Your task to perform on an android device: open app "Firefox Browser" (install if not already installed) Image 0: 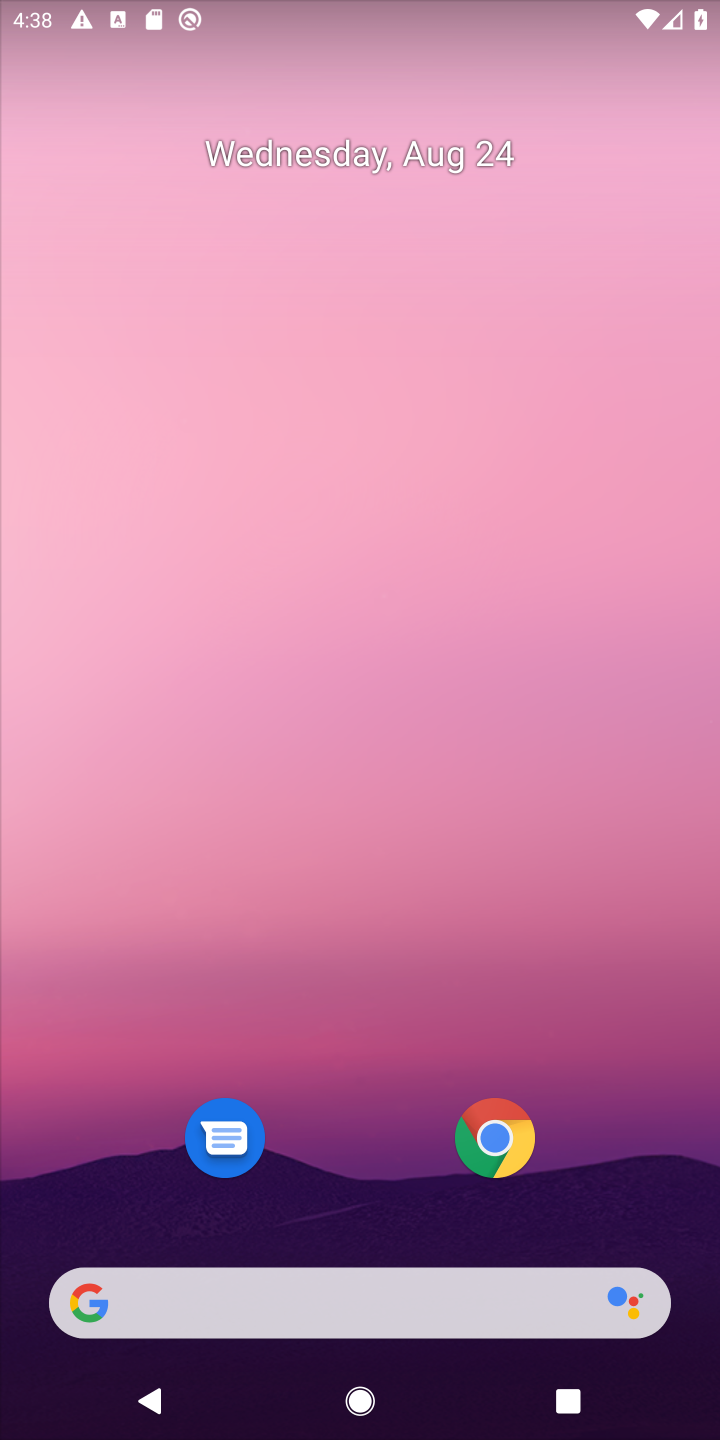
Step 0: drag from (412, 1248) to (380, 256)
Your task to perform on an android device: open app "Firefox Browser" (install if not already installed) Image 1: 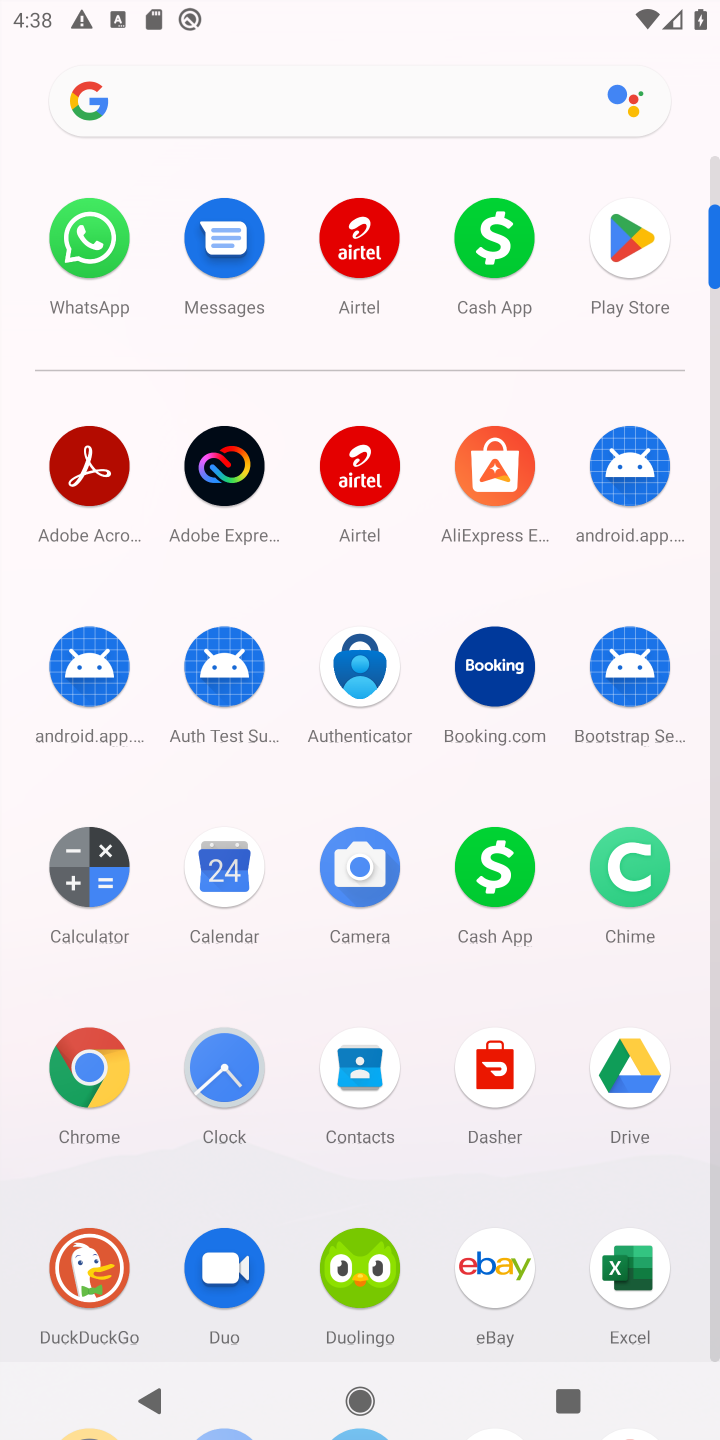
Step 1: drag from (424, 954) to (424, 478)
Your task to perform on an android device: open app "Firefox Browser" (install if not already installed) Image 2: 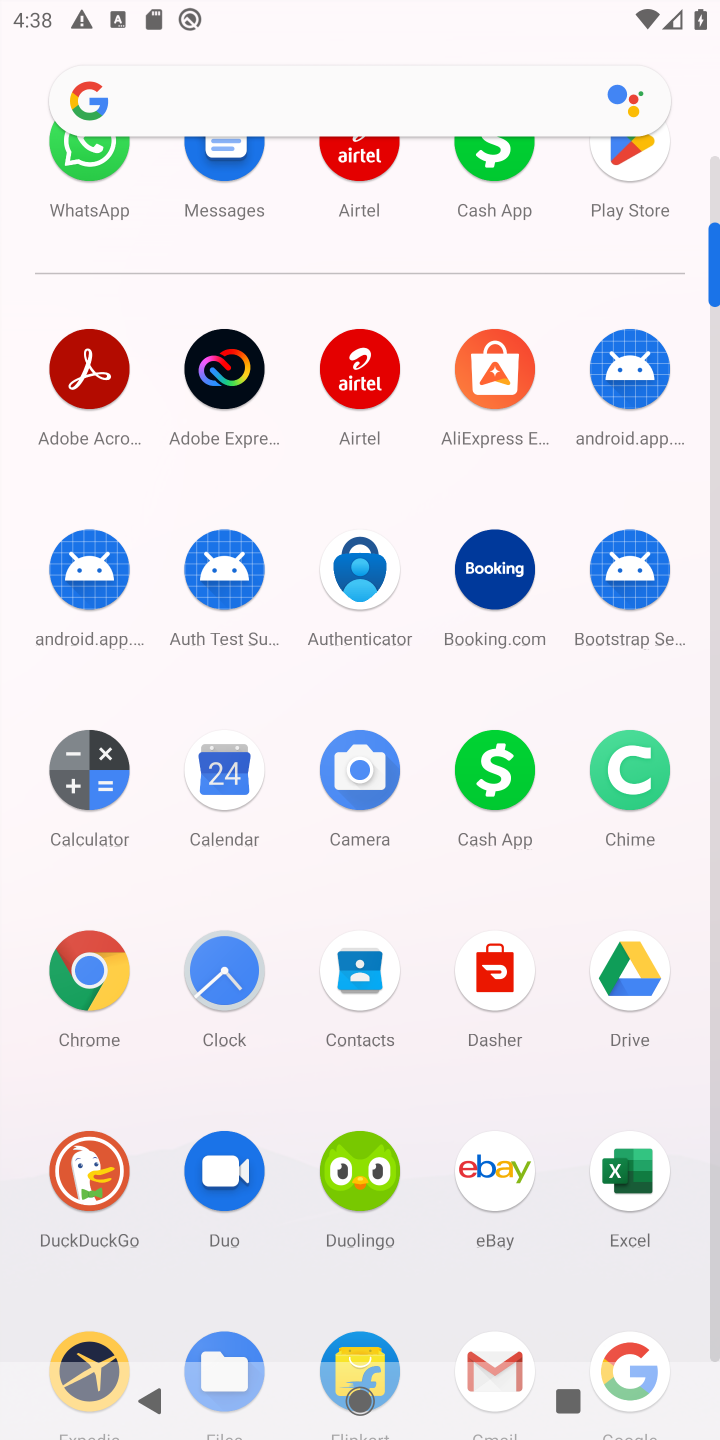
Step 2: drag from (420, 1265) to (420, 470)
Your task to perform on an android device: open app "Firefox Browser" (install if not already installed) Image 3: 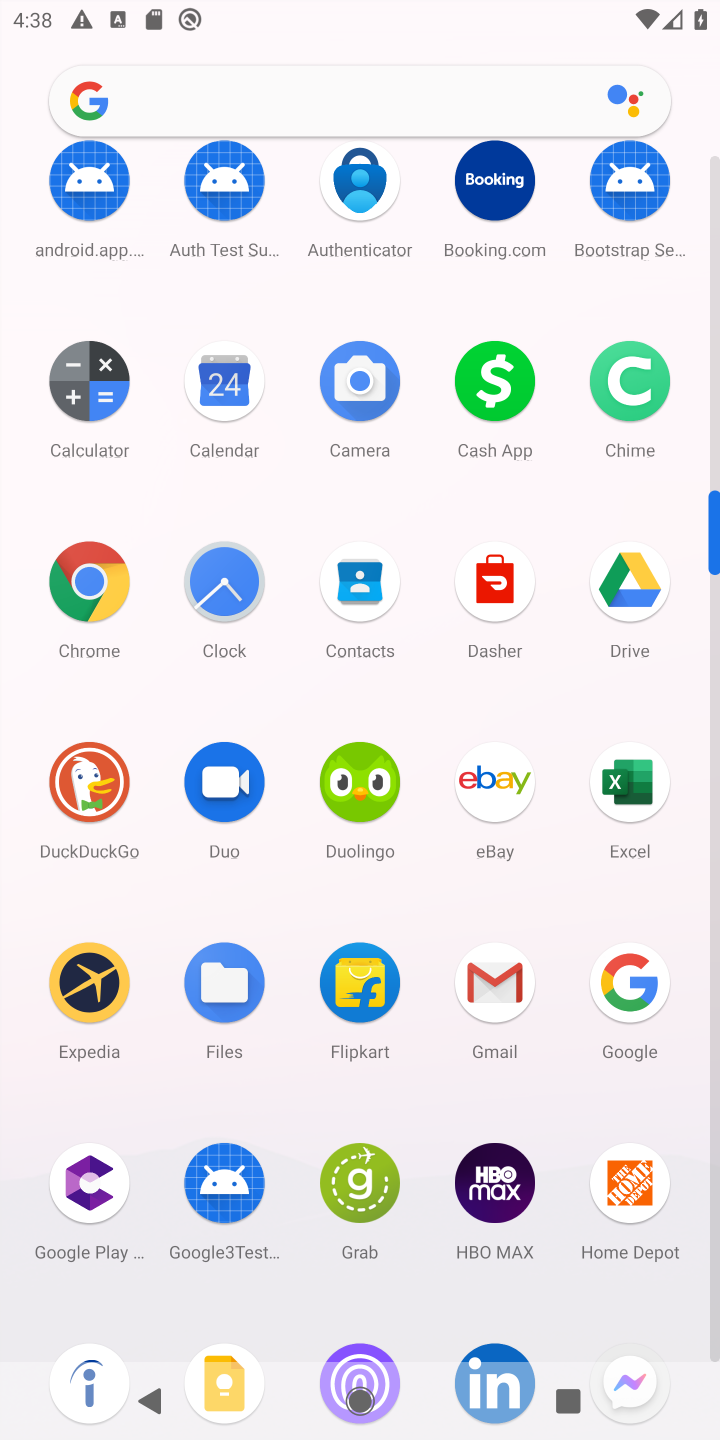
Step 3: drag from (416, 1334) to (425, 486)
Your task to perform on an android device: open app "Firefox Browser" (install if not already installed) Image 4: 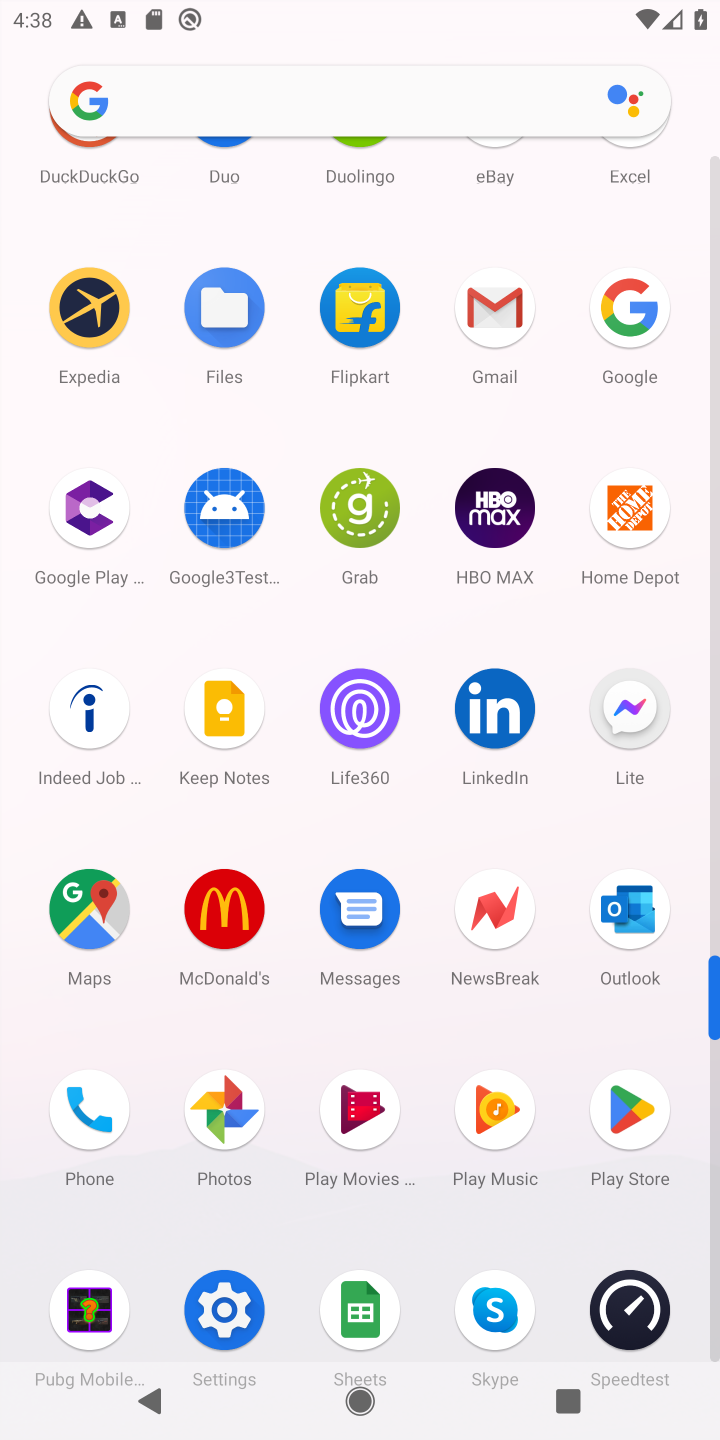
Step 4: drag from (402, 1261) to (420, 465)
Your task to perform on an android device: open app "Firefox Browser" (install if not already installed) Image 5: 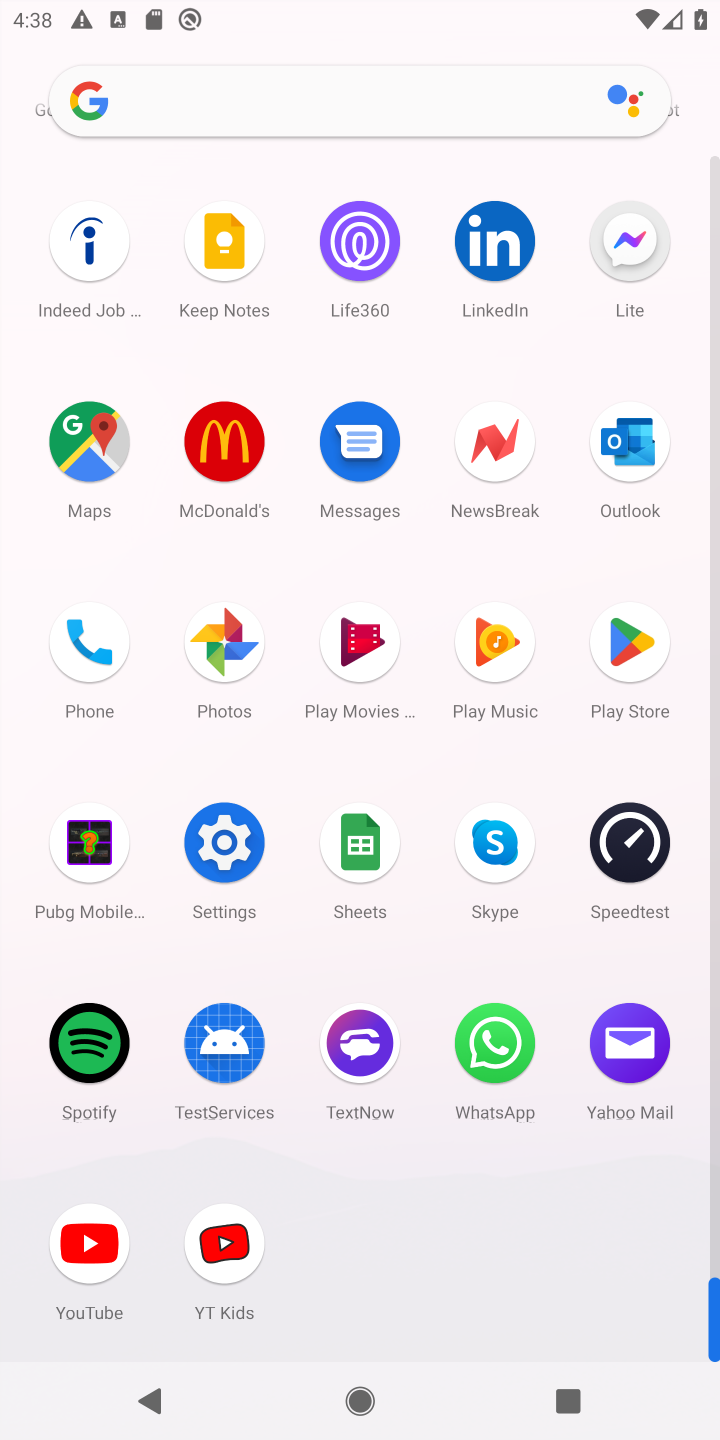
Step 5: click (620, 633)
Your task to perform on an android device: open app "Firefox Browser" (install if not already installed) Image 6: 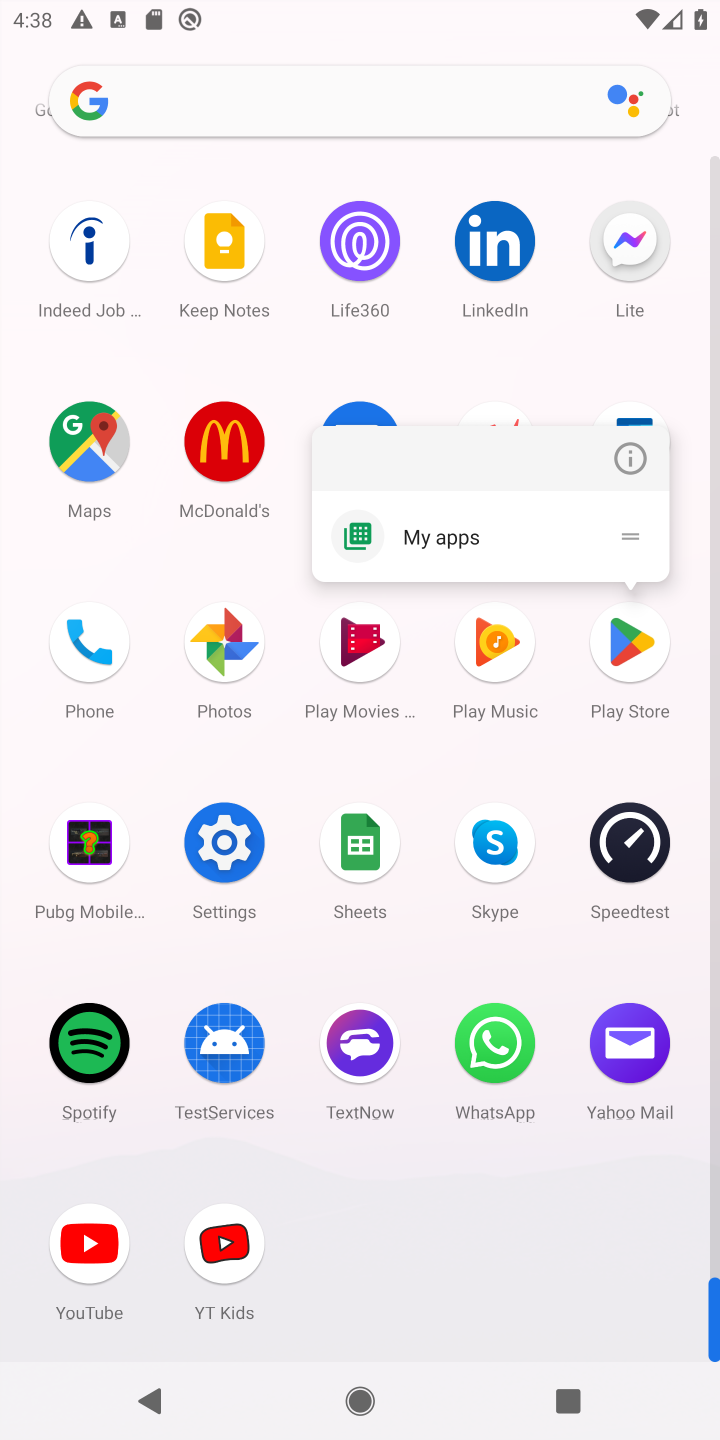
Step 6: click (642, 646)
Your task to perform on an android device: open app "Firefox Browser" (install if not already installed) Image 7: 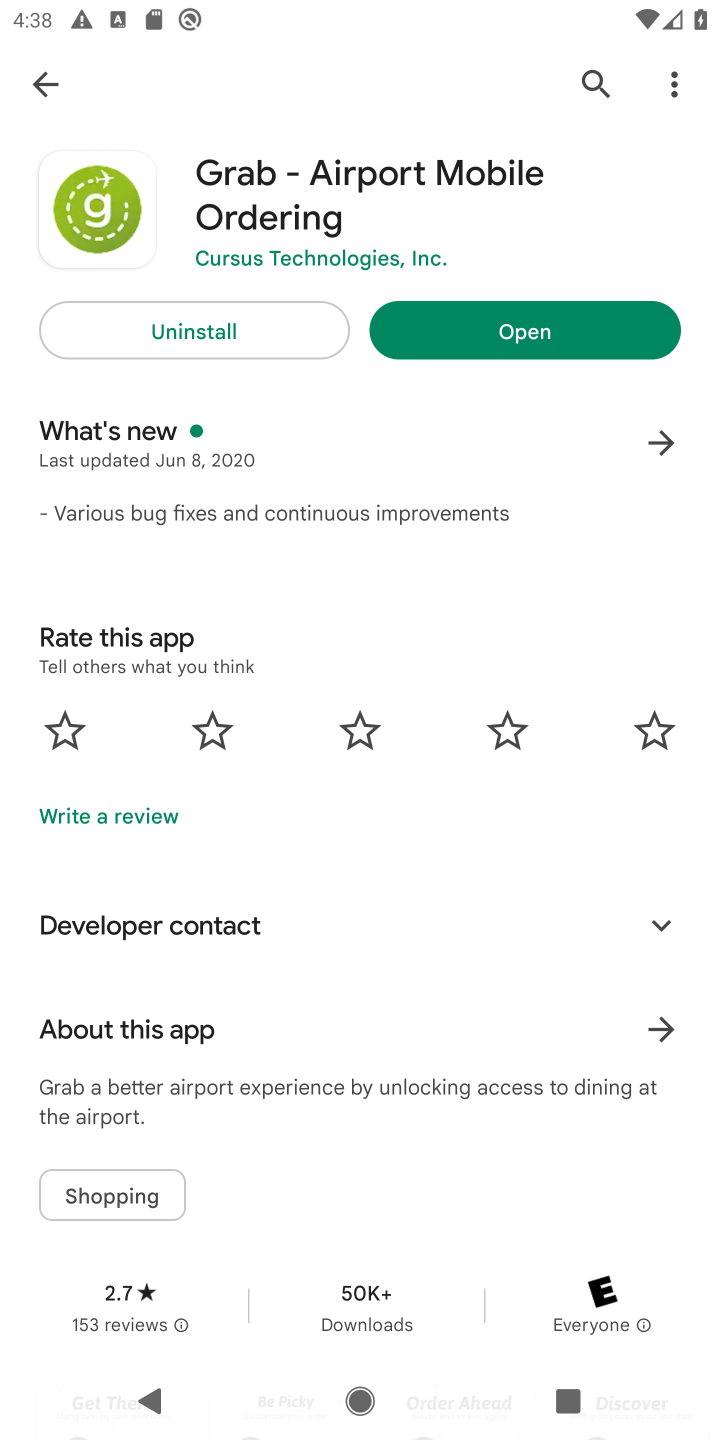
Step 7: click (587, 68)
Your task to perform on an android device: open app "Firefox Browser" (install if not already installed) Image 8: 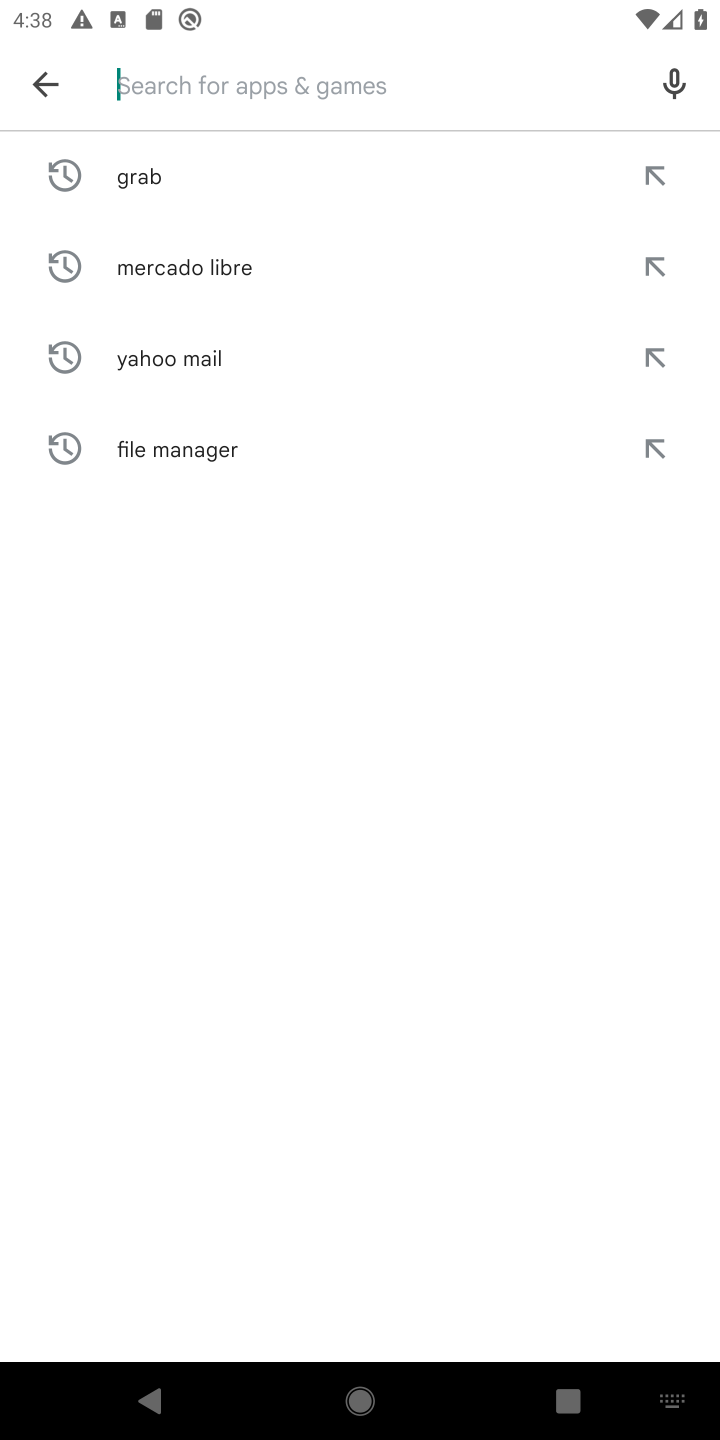
Step 8: type "Firefox Browser"
Your task to perform on an android device: open app "Firefox Browser" (install if not already installed) Image 9: 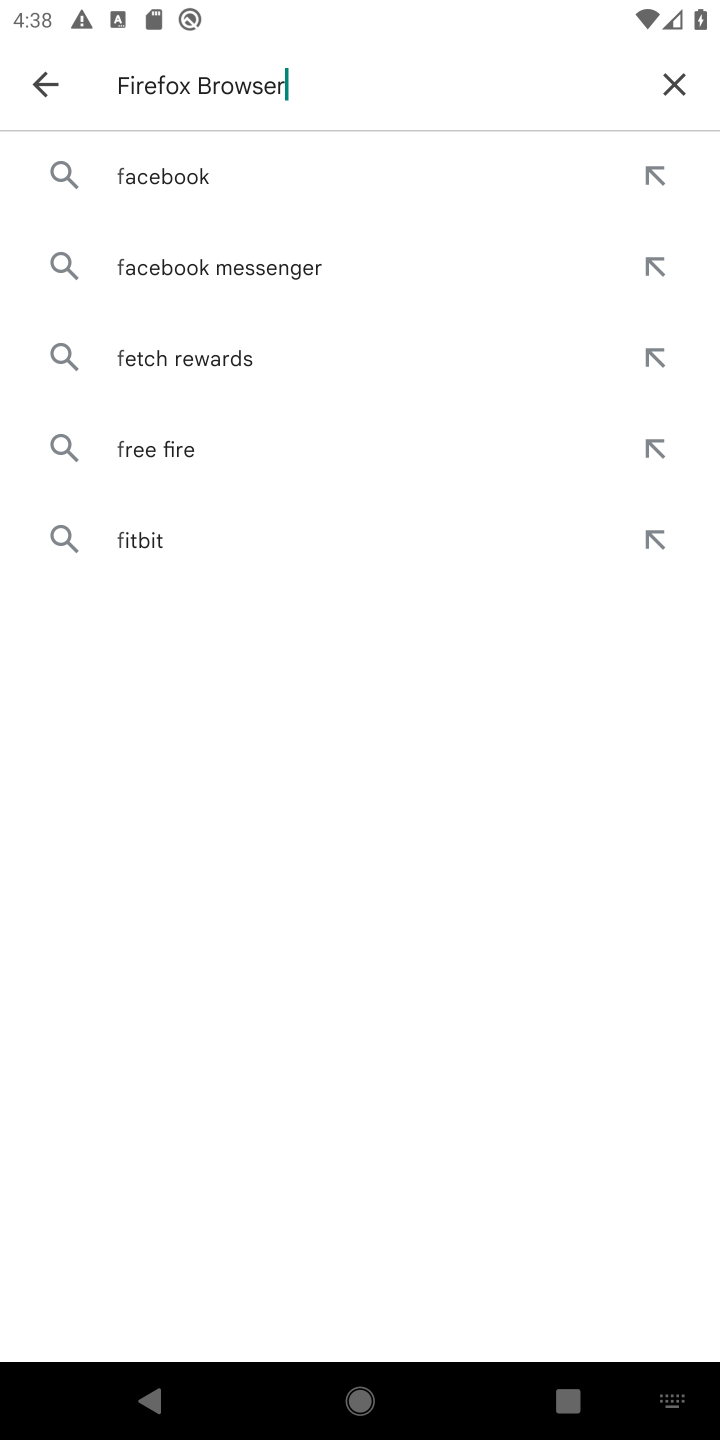
Step 9: type ""
Your task to perform on an android device: open app "Firefox Browser" (install if not already installed) Image 10: 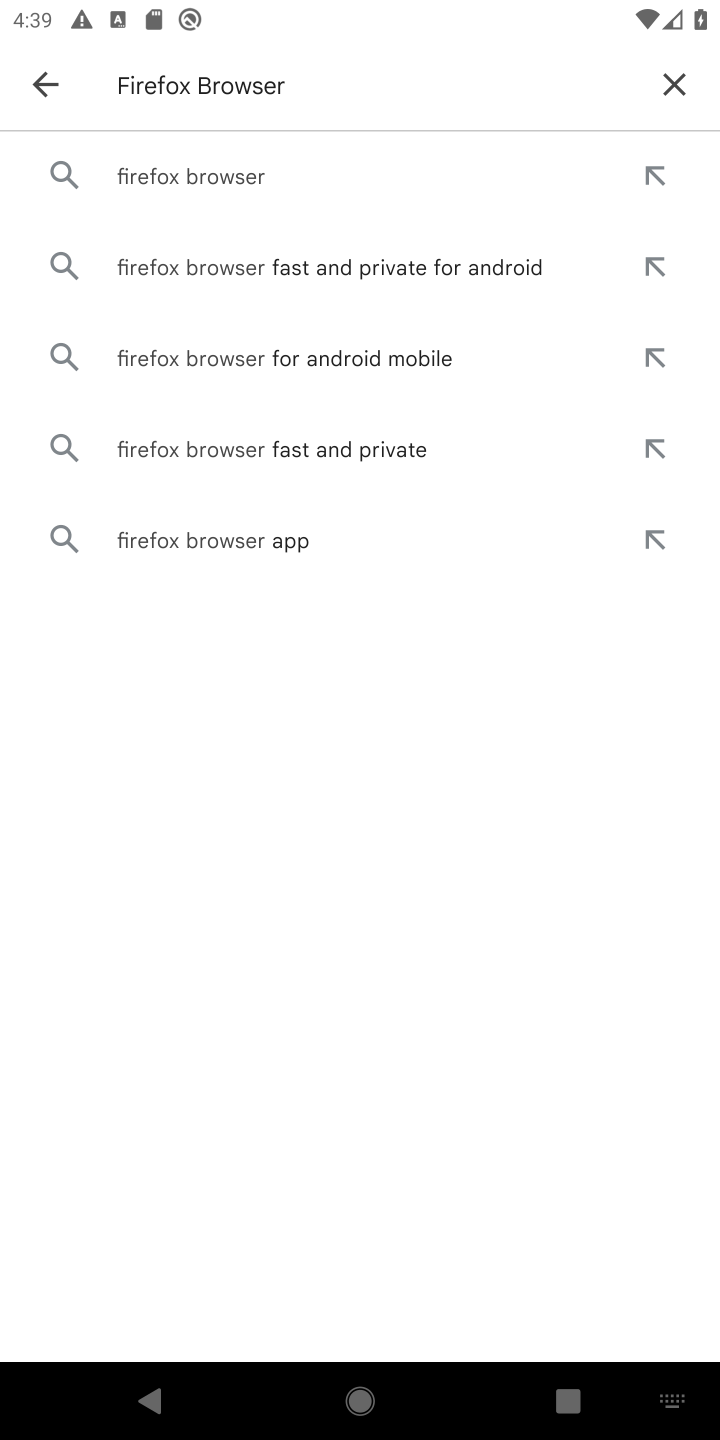
Step 10: click (200, 174)
Your task to perform on an android device: open app "Firefox Browser" (install if not already installed) Image 11: 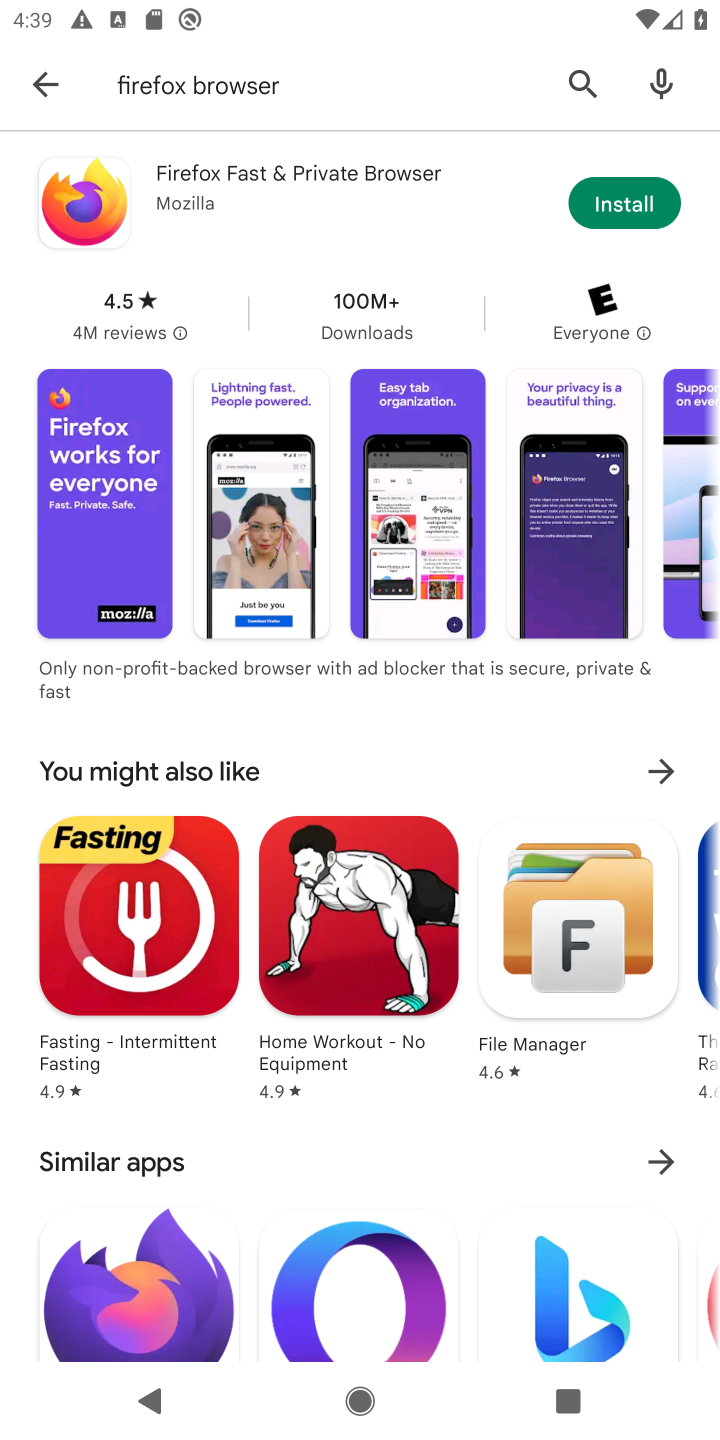
Step 11: click (629, 202)
Your task to perform on an android device: open app "Firefox Browser" (install if not already installed) Image 12: 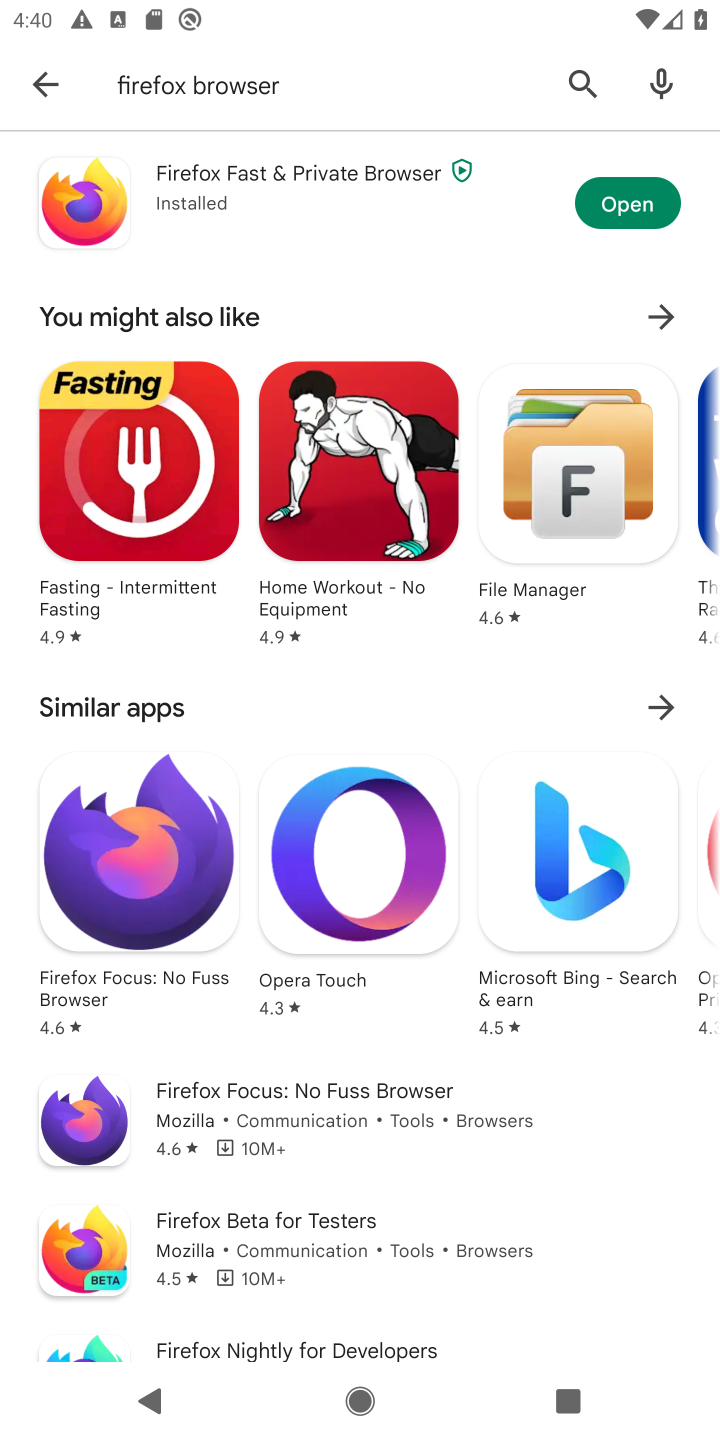
Step 12: click (615, 204)
Your task to perform on an android device: open app "Firefox Browser" (install if not already installed) Image 13: 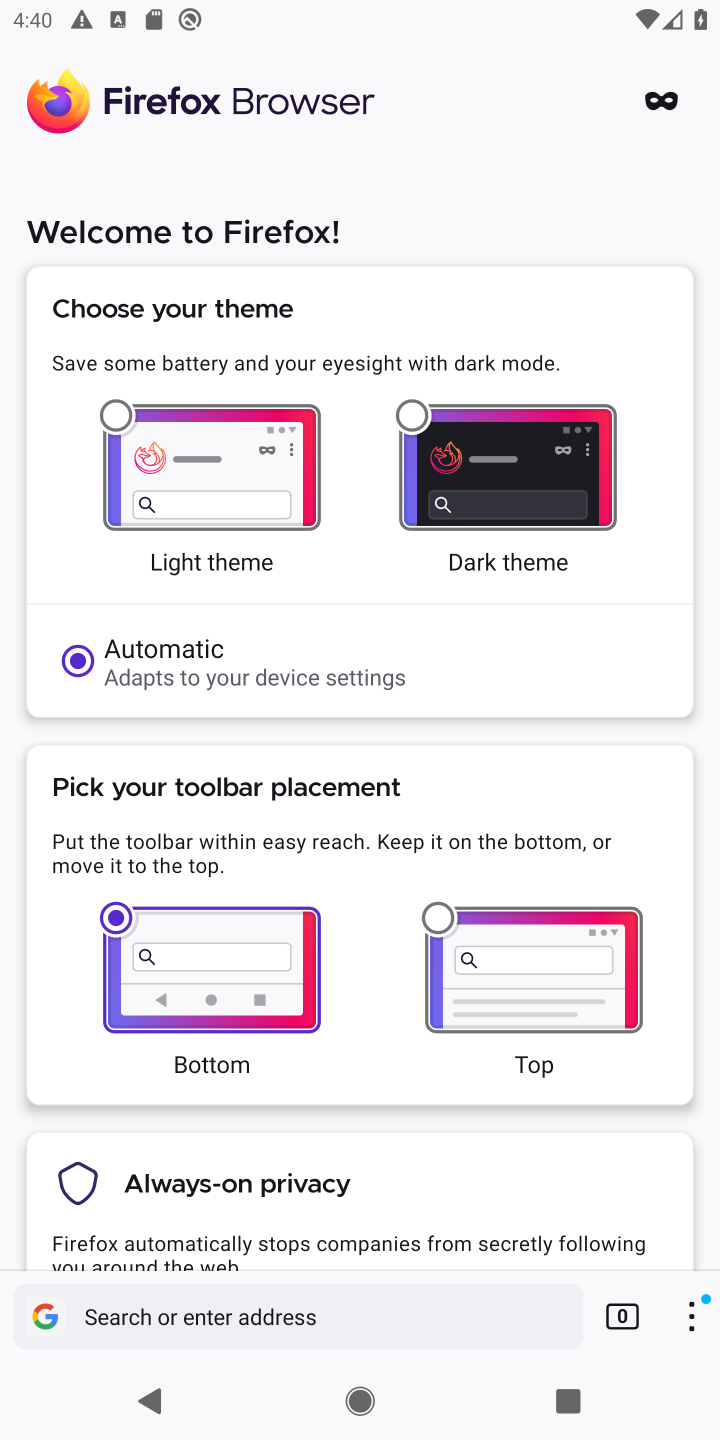
Step 13: task complete